Your task to perform on an android device: Go to battery settings Image 0: 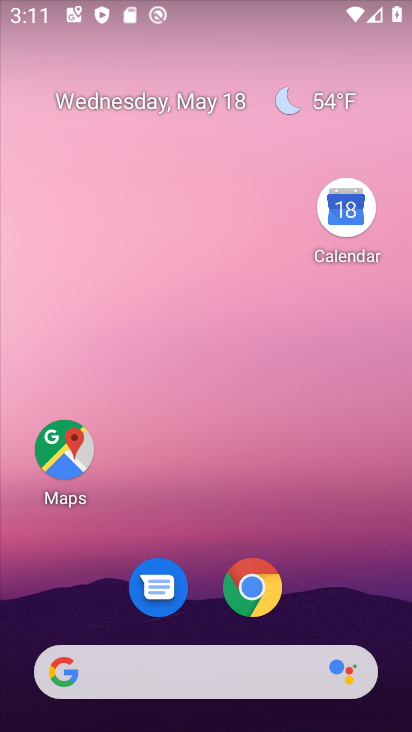
Step 0: drag from (196, 624) to (246, 306)
Your task to perform on an android device: Go to battery settings Image 1: 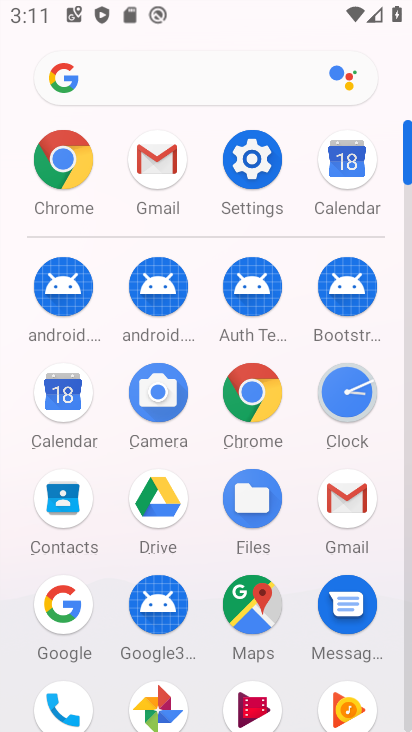
Step 1: click (240, 149)
Your task to perform on an android device: Go to battery settings Image 2: 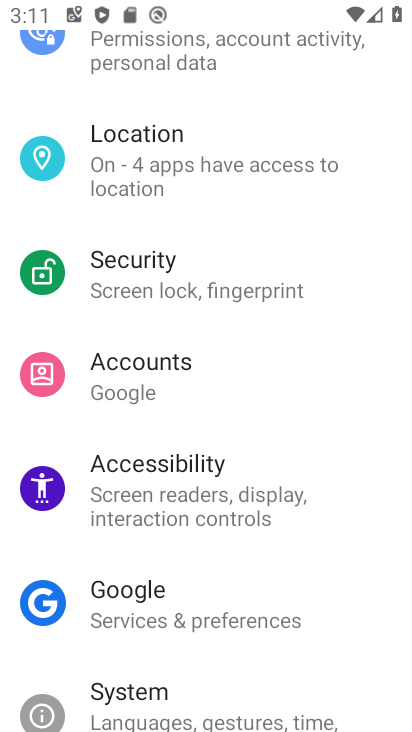
Step 2: drag from (171, 150) to (229, 725)
Your task to perform on an android device: Go to battery settings Image 3: 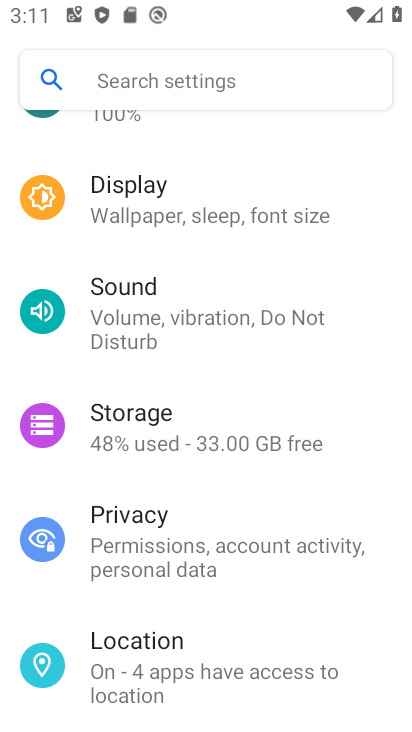
Step 3: drag from (165, 242) to (202, 576)
Your task to perform on an android device: Go to battery settings Image 4: 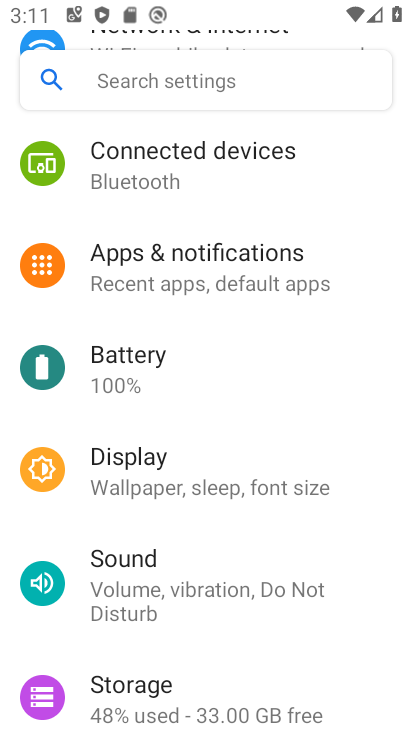
Step 4: click (160, 381)
Your task to perform on an android device: Go to battery settings Image 5: 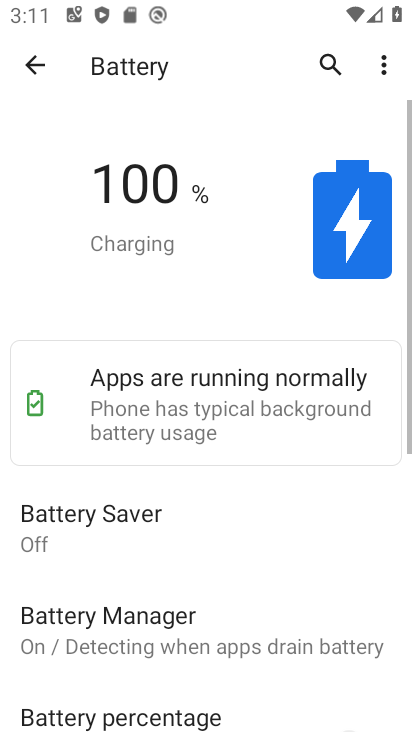
Step 5: task complete